Your task to perform on an android device: clear history in the chrome app Image 0: 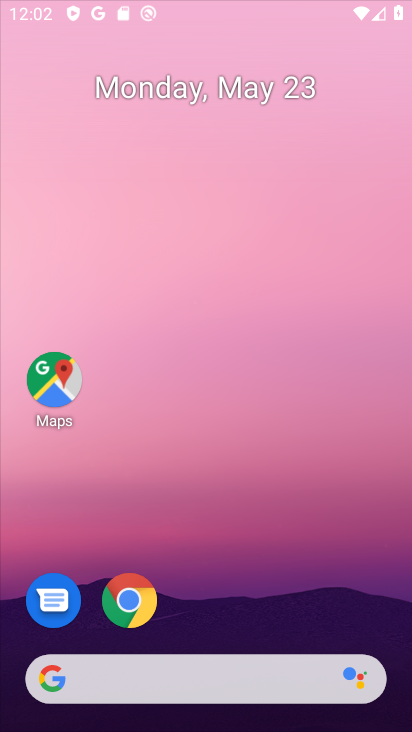
Step 0: click (277, 50)
Your task to perform on an android device: clear history in the chrome app Image 1: 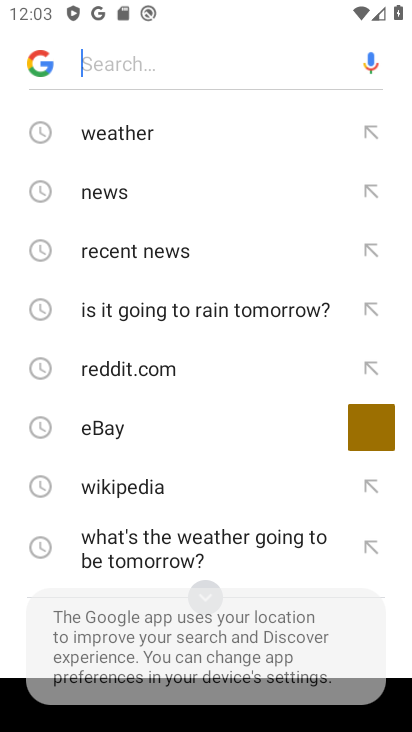
Step 1: press home button
Your task to perform on an android device: clear history in the chrome app Image 2: 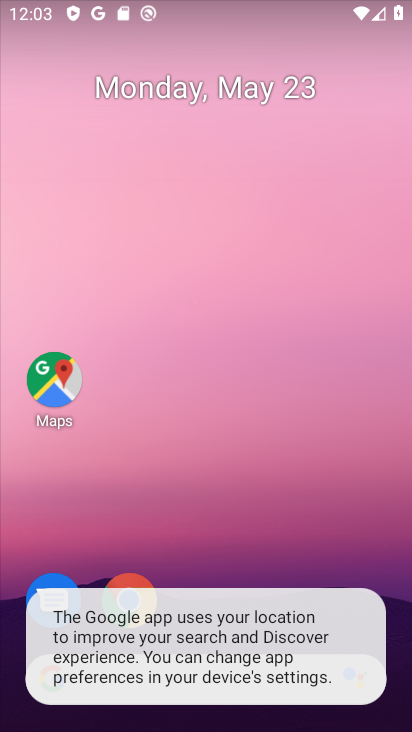
Step 2: drag from (269, 527) to (256, 58)
Your task to perform on an android device: clear history in the chrome app Image 3: 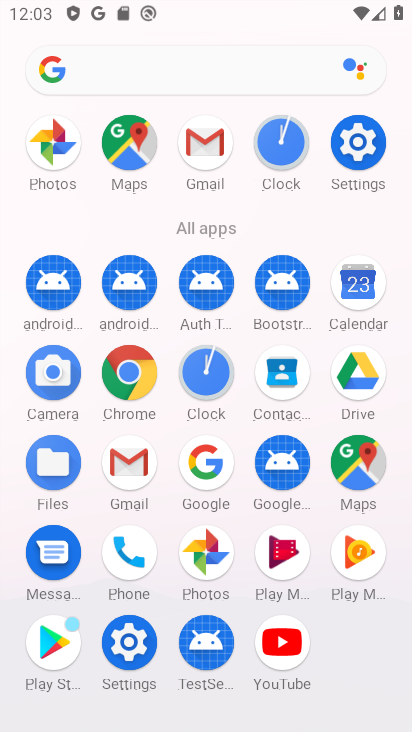
Step 3: click (127, 385)
Your task to perform on an android device: clear history in the chrome app Image 4: 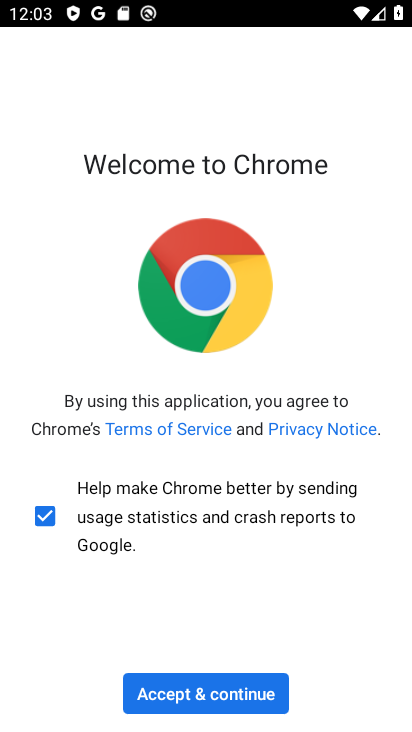
Step 4: click (219, 693)
Your task to perform on an android device: clear history in the chrome app Image 5: 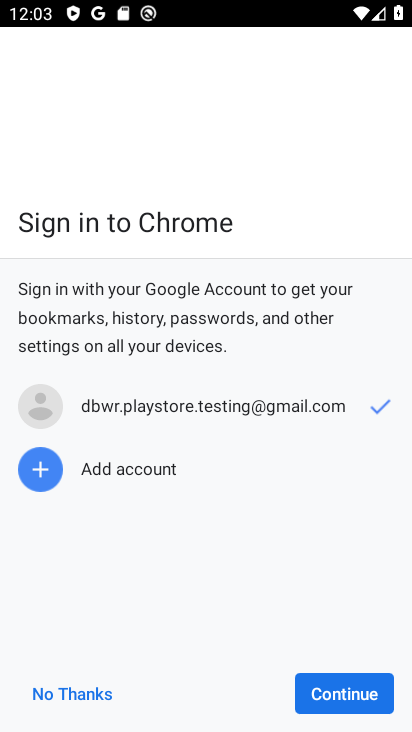
Step 5: click (64, 668)
Your task to perform on an android device: clear history in the chrome app Image 6: 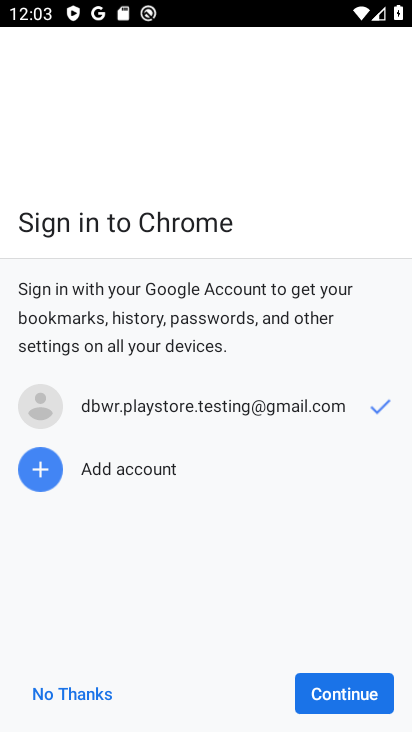
Step 6: click (74, 689)
Your task to perform on an android device: clear history in the chrome app Image 7: 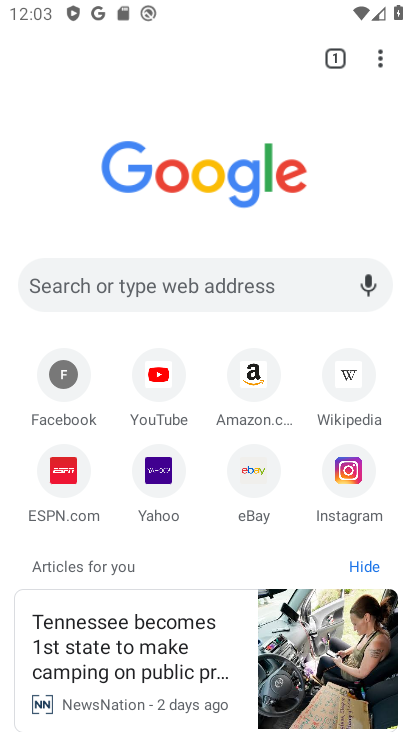
Step 7: task complete